Your task to perform on an android device: turn notification dots off Image 0: 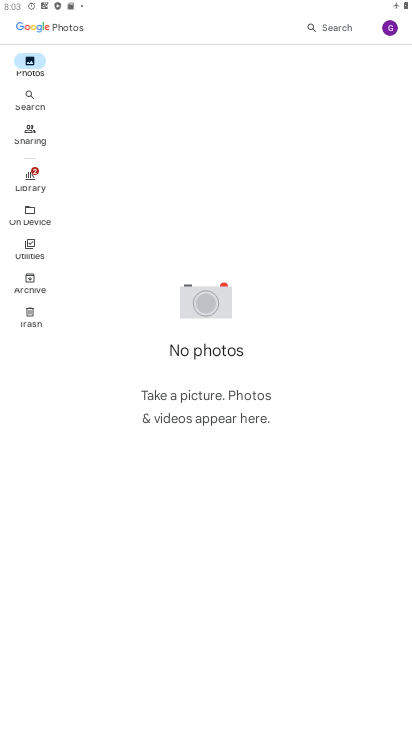
Step 0: press home button
Your task to perform on an android device: turn notification dots off Image 1: 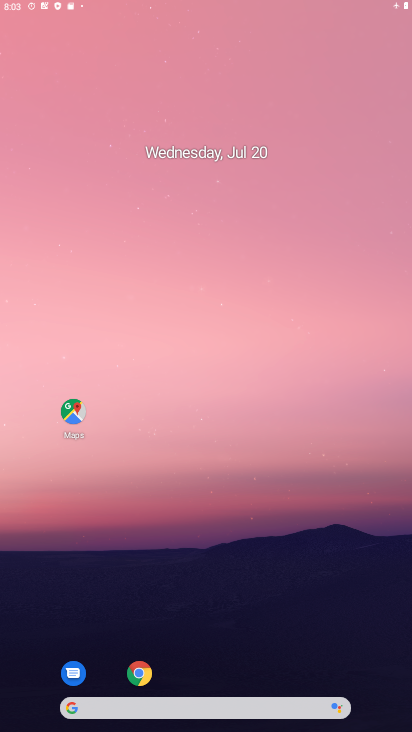
Step 1: drag from (366, 702) to (192, 35)
Your task to perform on an android device: turn notification dots off Image 2: 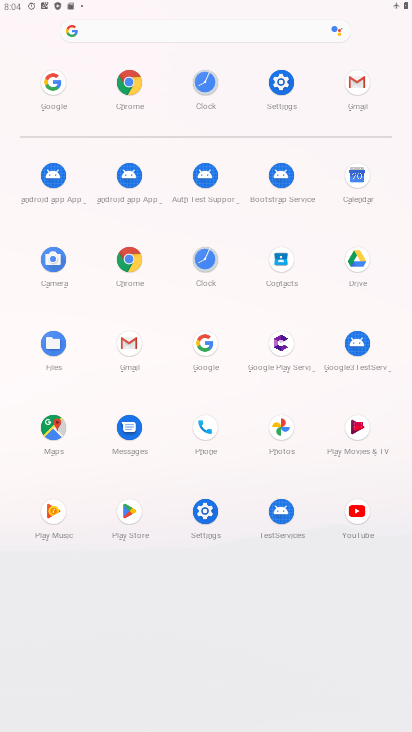
Step 2: click (197, 507)
Your task to perform on an android device: turn notification dots off Image 3: 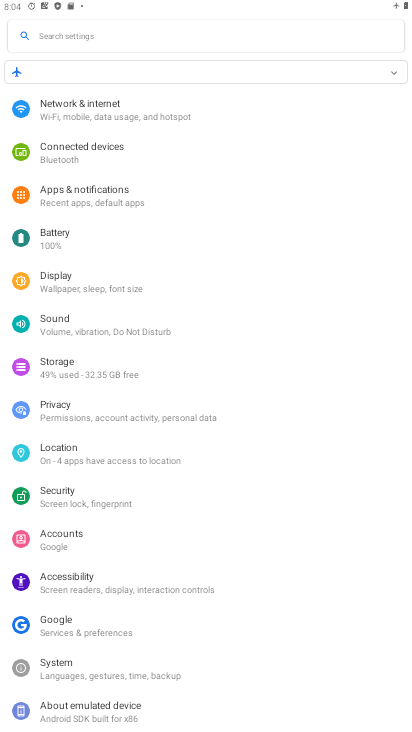
Step 3: click (110, 198)
Your task to perform on an android device: turn notification dots off Image 4: 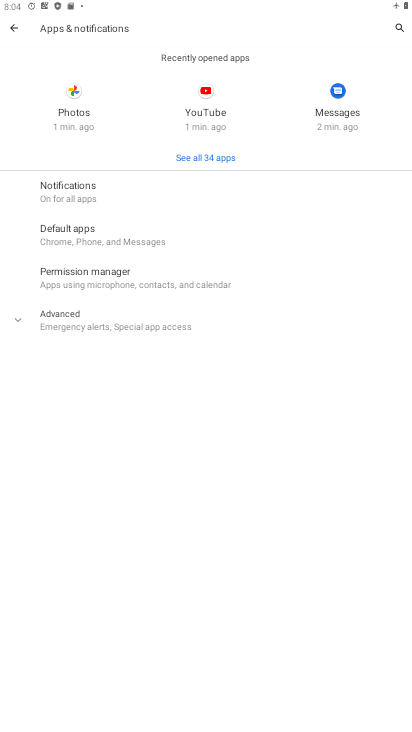
Step 4: click (94, 187)
Your task to perform on an android device: turn notification dots off Image 5: 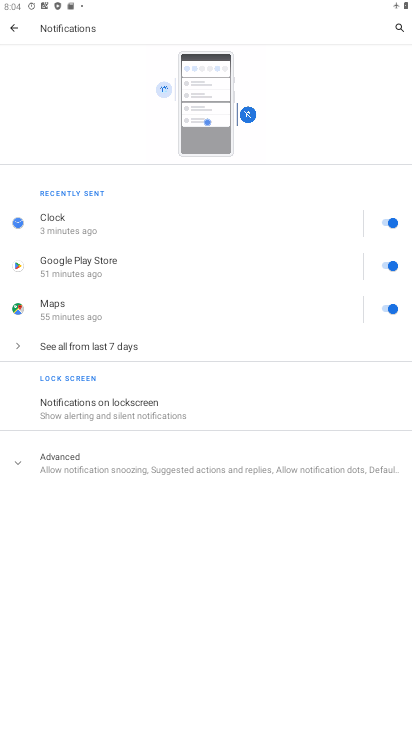
Step 5: click (47, 457)
Your task to perform on an android device: turn notification dots off Image 6: 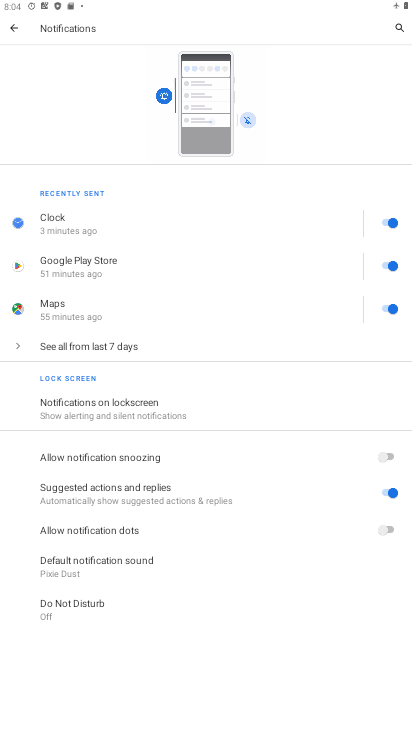
Step 6: task complete